Your task to perform on an android device: Show me popular videos on Youtube Image 0: 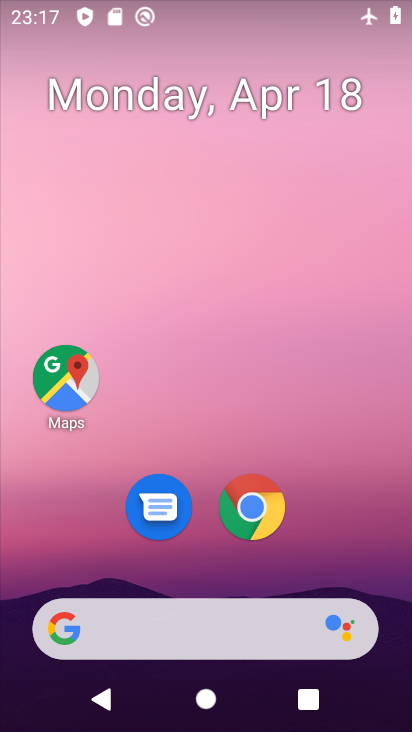
Step 0: drag from (353, 267) to (363, 0)
Your task to perform on an android device: Show me popular videos on Youtube Image 1: 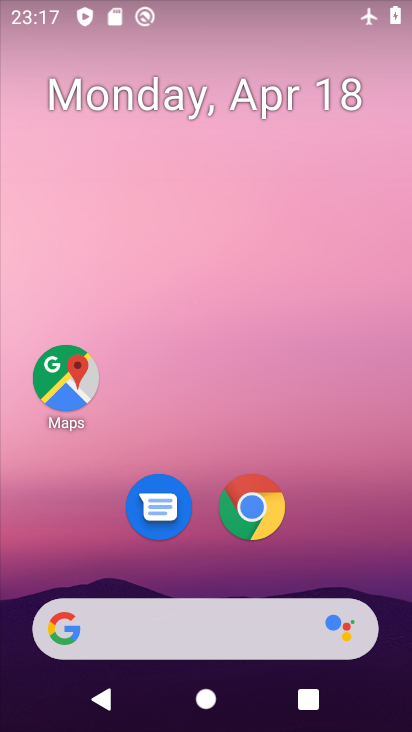
Step 1: drag from (316, 515) to (350, 61)
Your task to perform on an android device: Show me popular videos on Youtube Image 2: 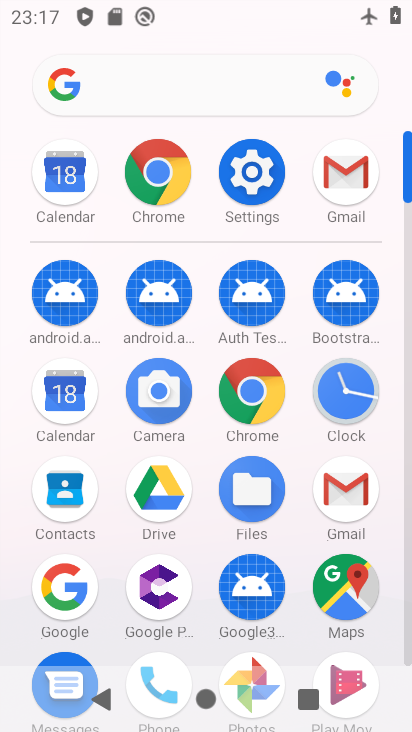
Step 2: drag from (269, 525) to (333, 108)
Your task to perform on an android device: Show me popular videos on Youtube Image 3: 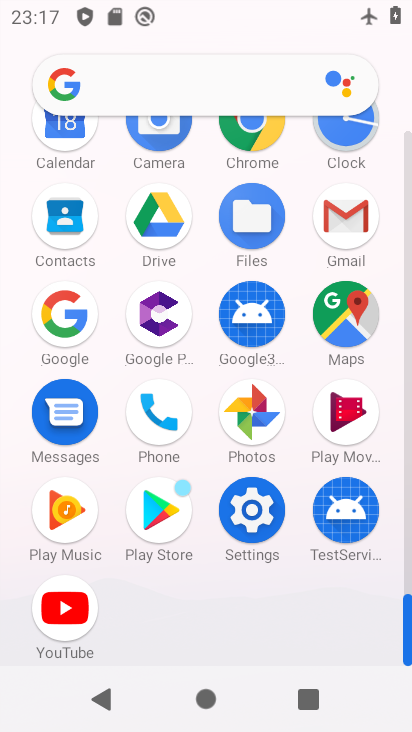
Step 3: click (58, 599)
Your task to perform on an android device: Show me popular videos on Youtube Image 4: 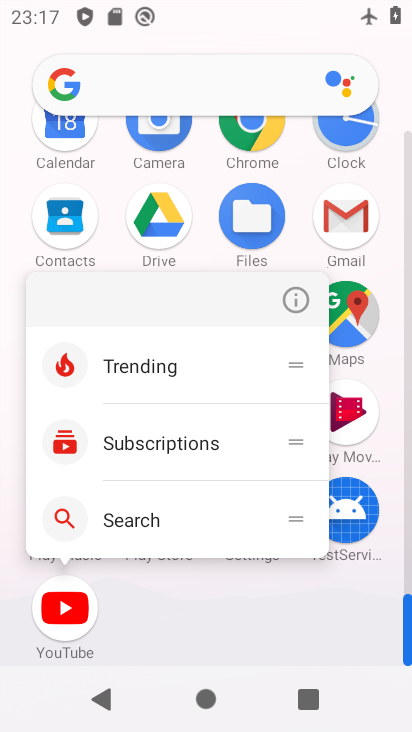
Step 4: click (59, 591)
Your task to perform on an android device: Show me popular videos on Youtube Image 5: 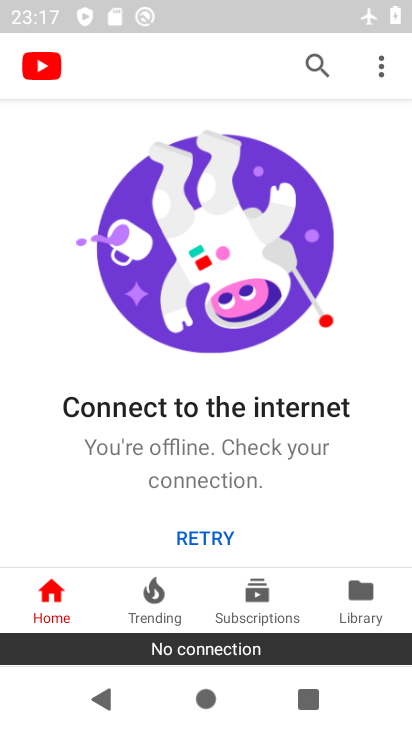
Step 5: task complete